Your task to perform on an android device: change the clock display to analog Image 0: 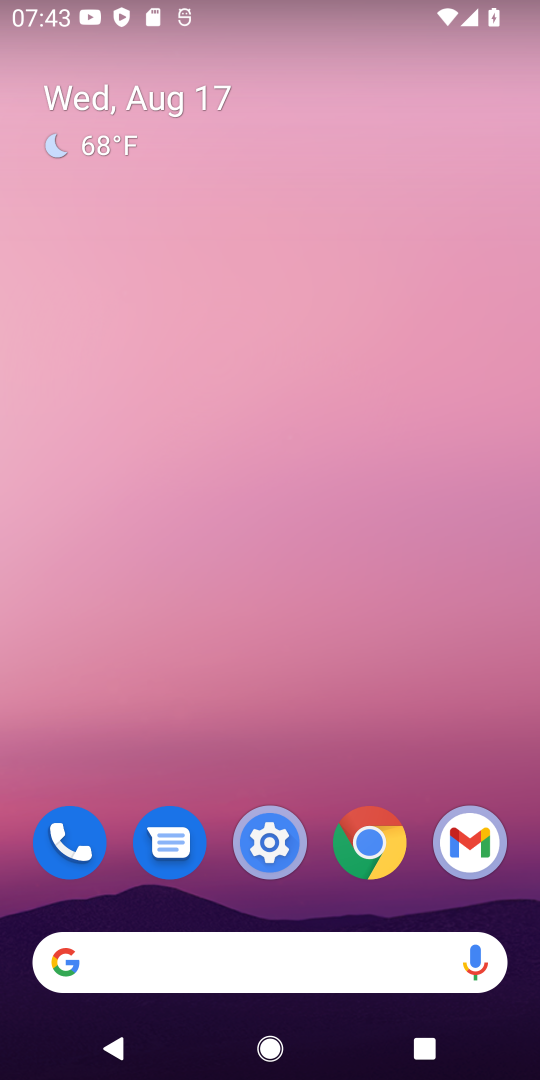
Step 0: drag from (296, 743) to (283, 0)
Your task to perform on an android device: change the clock display to analog Image 1: 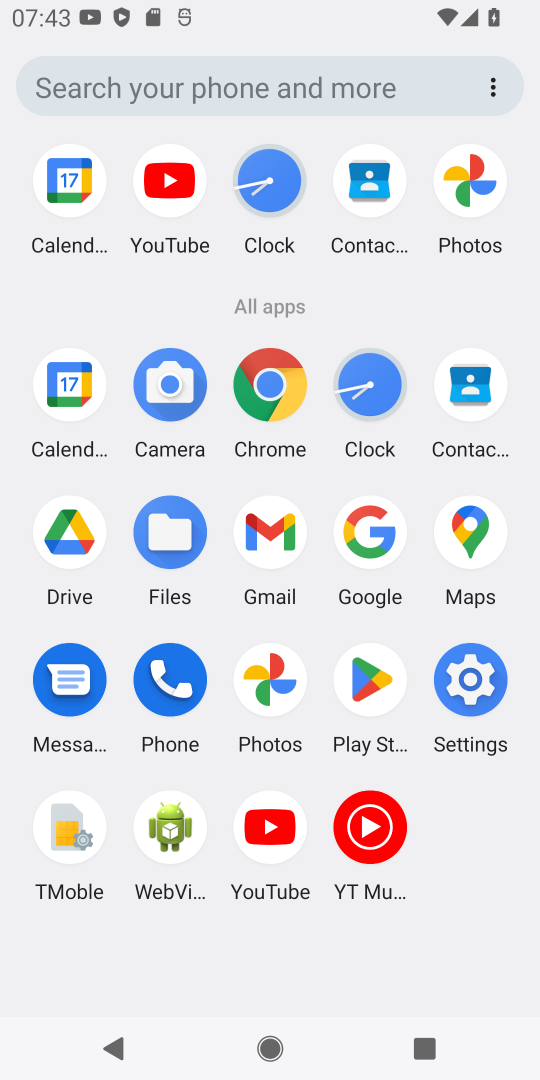
Step 1: click (277, 186)
Your task to perform on an android device: change the clock display to analog Image 2: 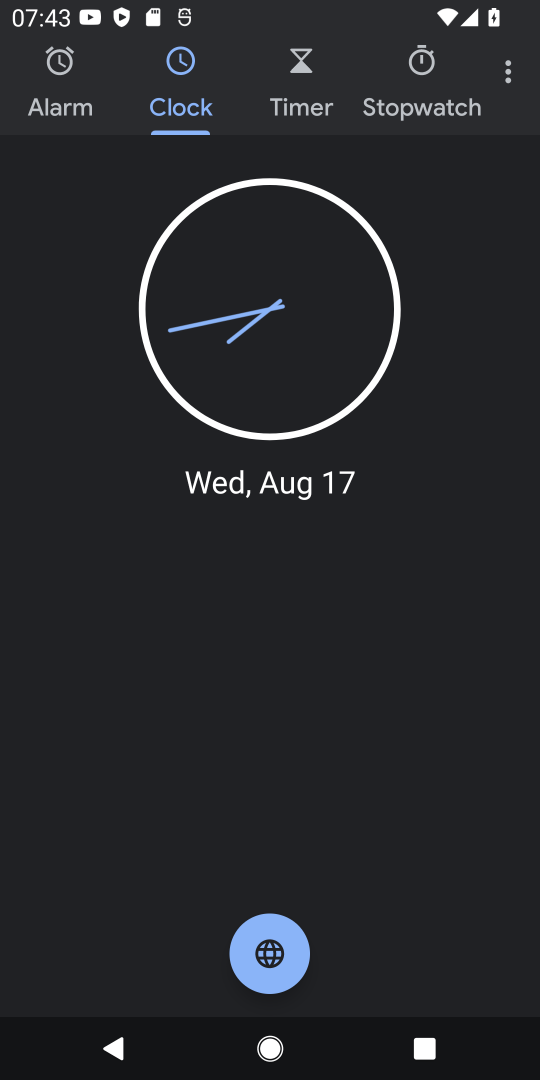
Step 2: task complete